Your task to perform on an android device: check the backup settings in the google photos Image 0: 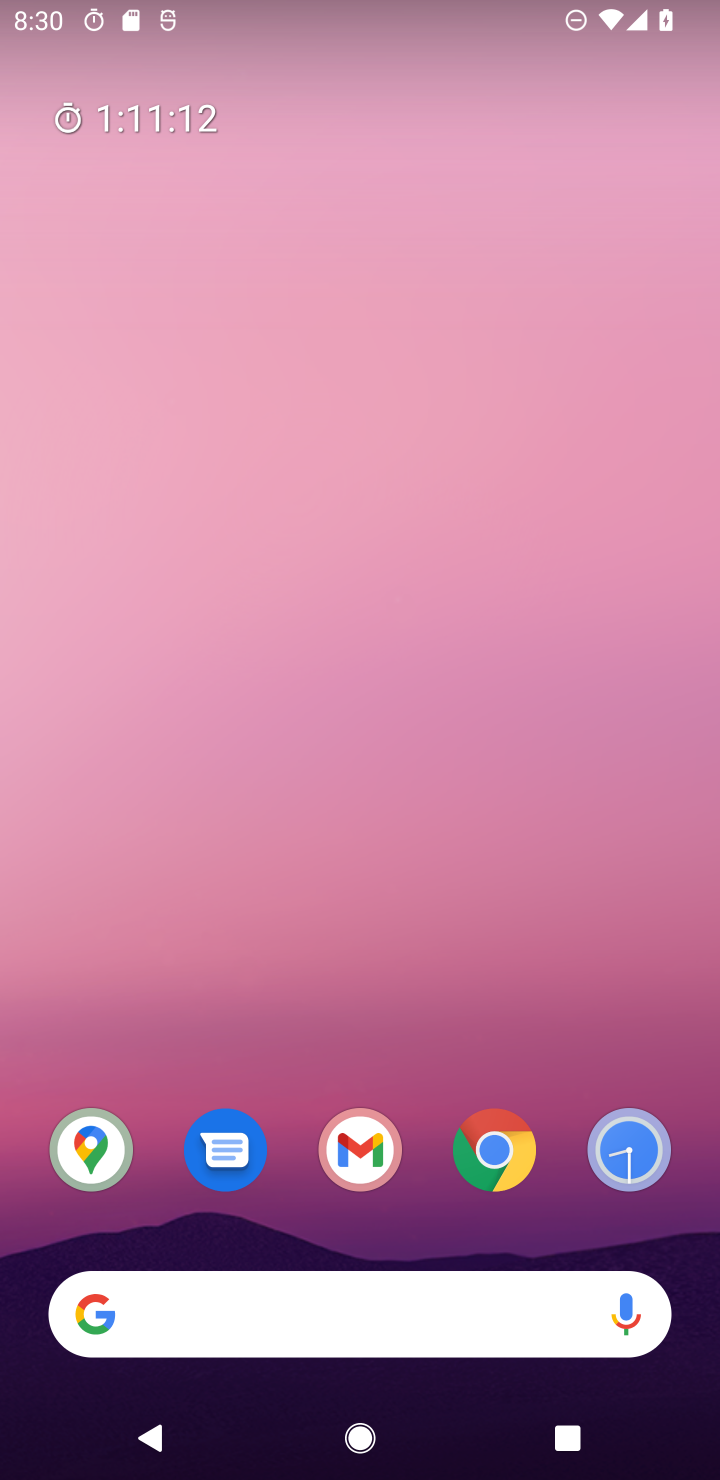
Step 0: drag from (431, 1072) to (439, 25)
Your task to perform on an android device: check the backup settings in the google photos Image 1: 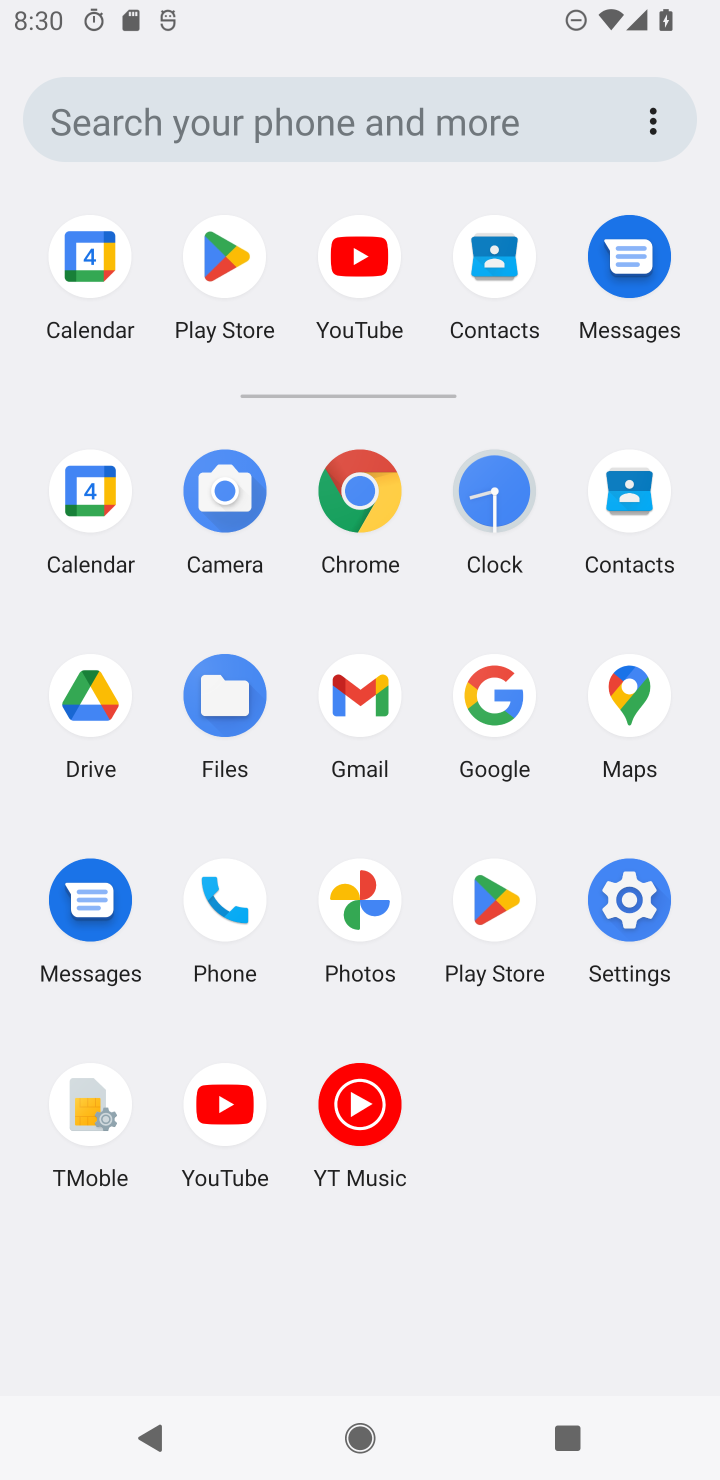
Step 1: click (336, 911)
Your task to perform on an android device: check the backup settings in the google photos Image 2: 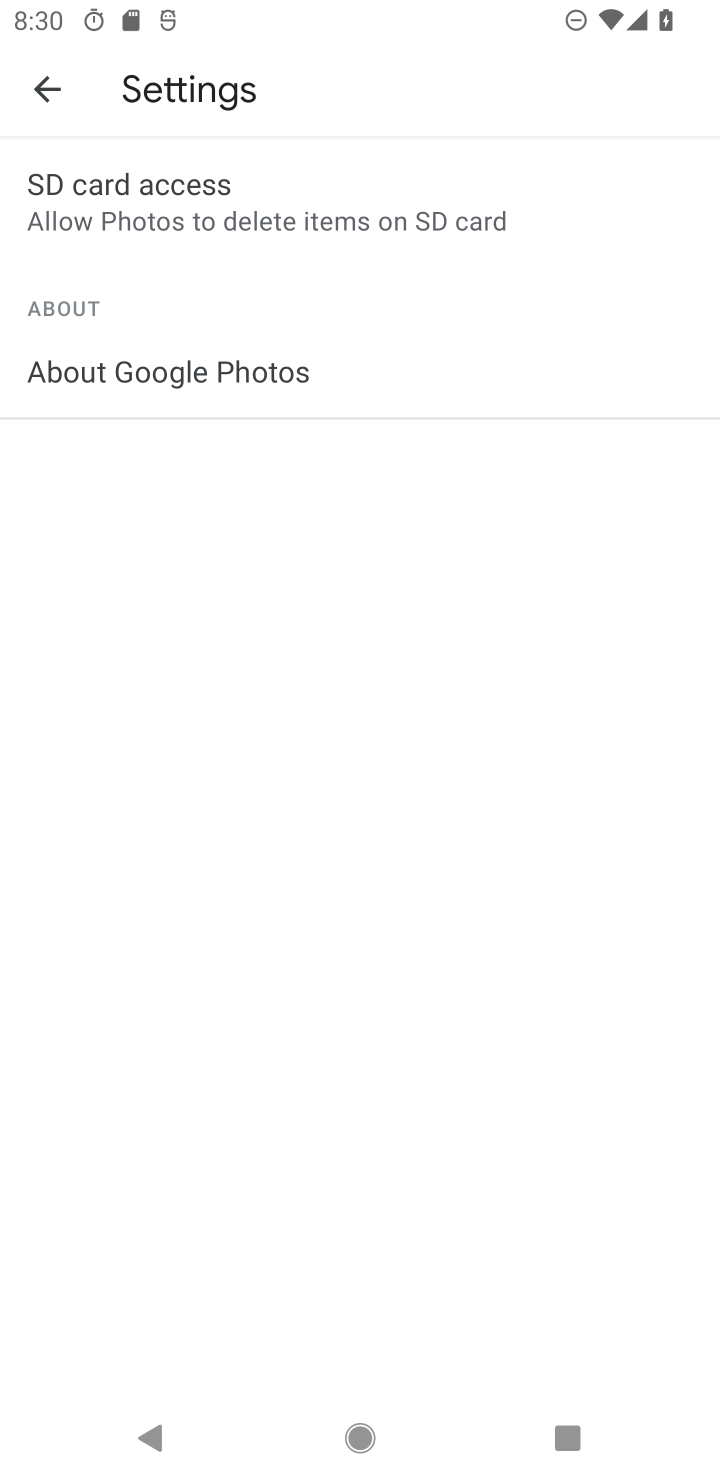
Step 2: press back button
Your task to perform on an android device: check the backup settings in the google photos Image 3: 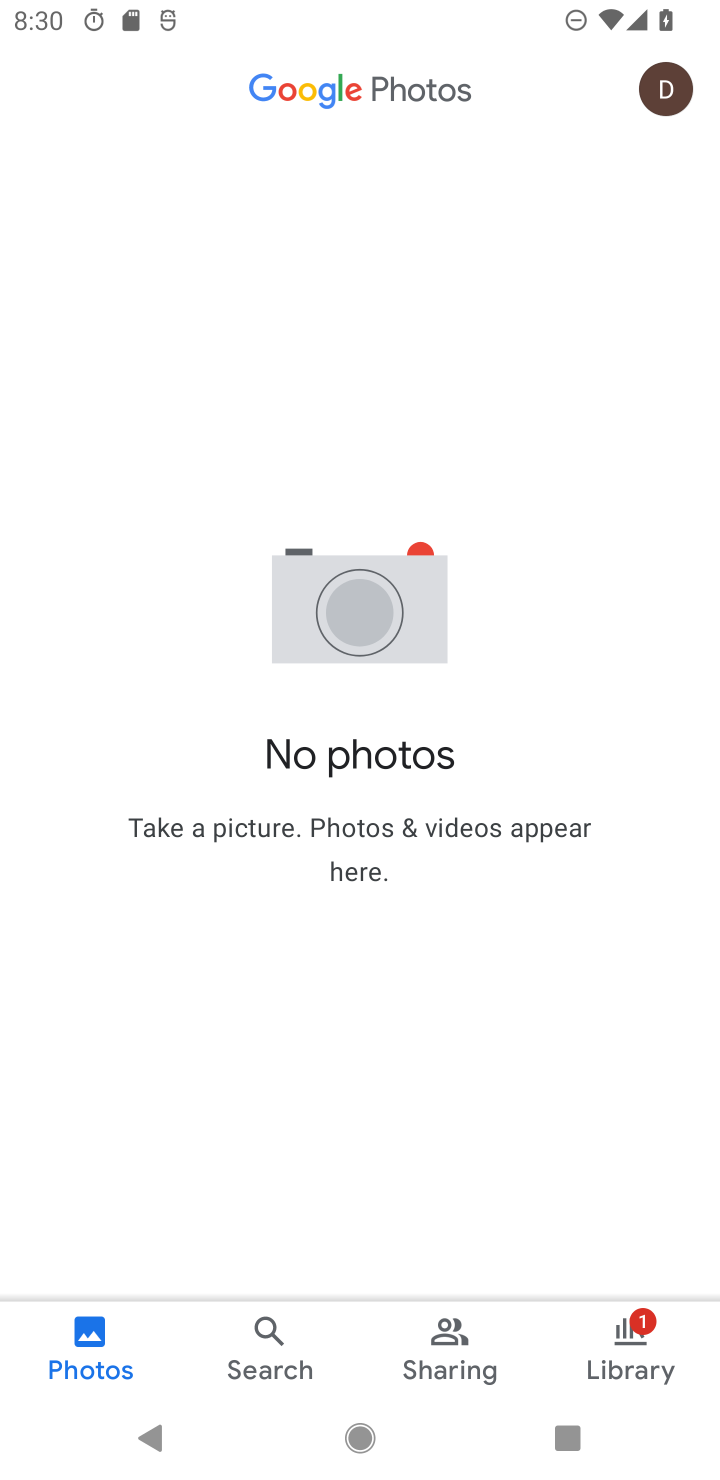
Step 3: click (646, 83)
Your task to perform on an android device: check the backup settings in the google photos Image 4: 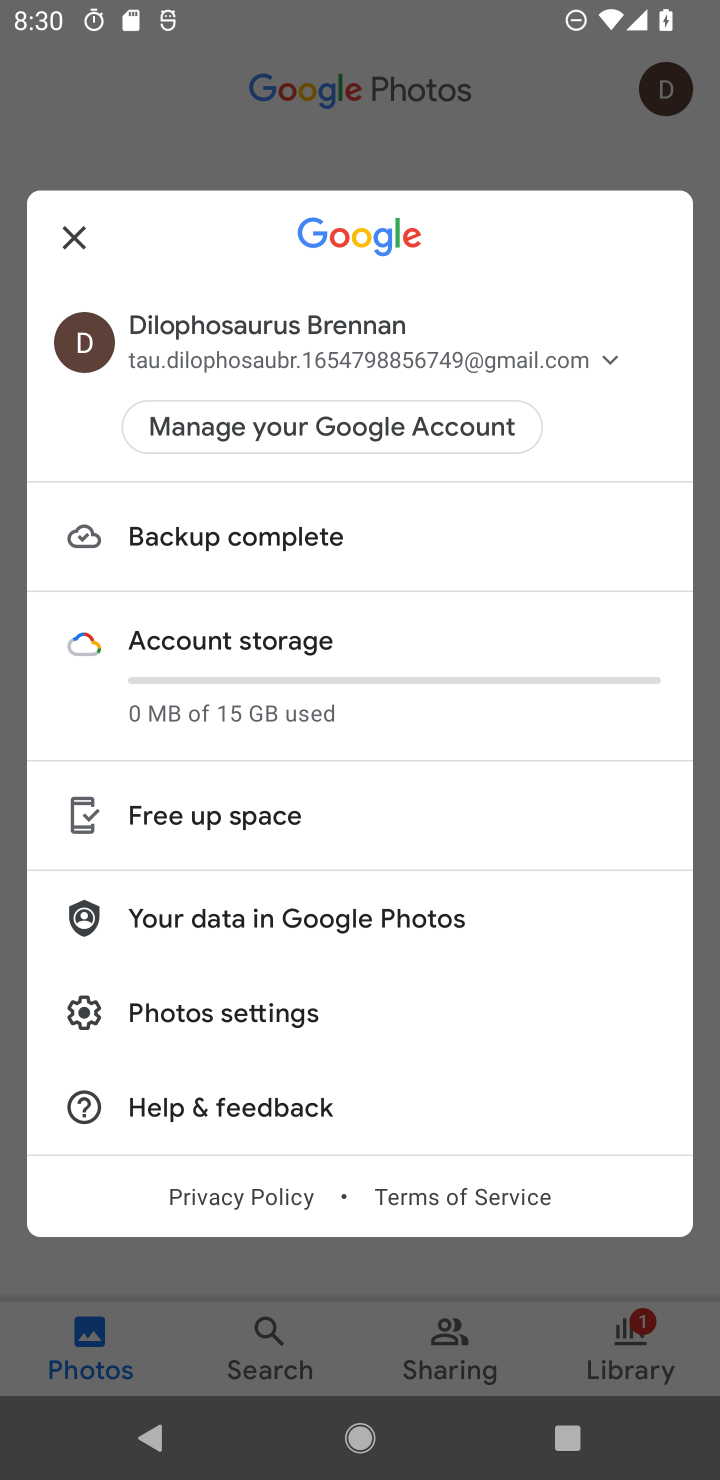
Step 4: click (300, 1020)
Your task to perform on an android device: check the backup settings in the google photos Image 5: 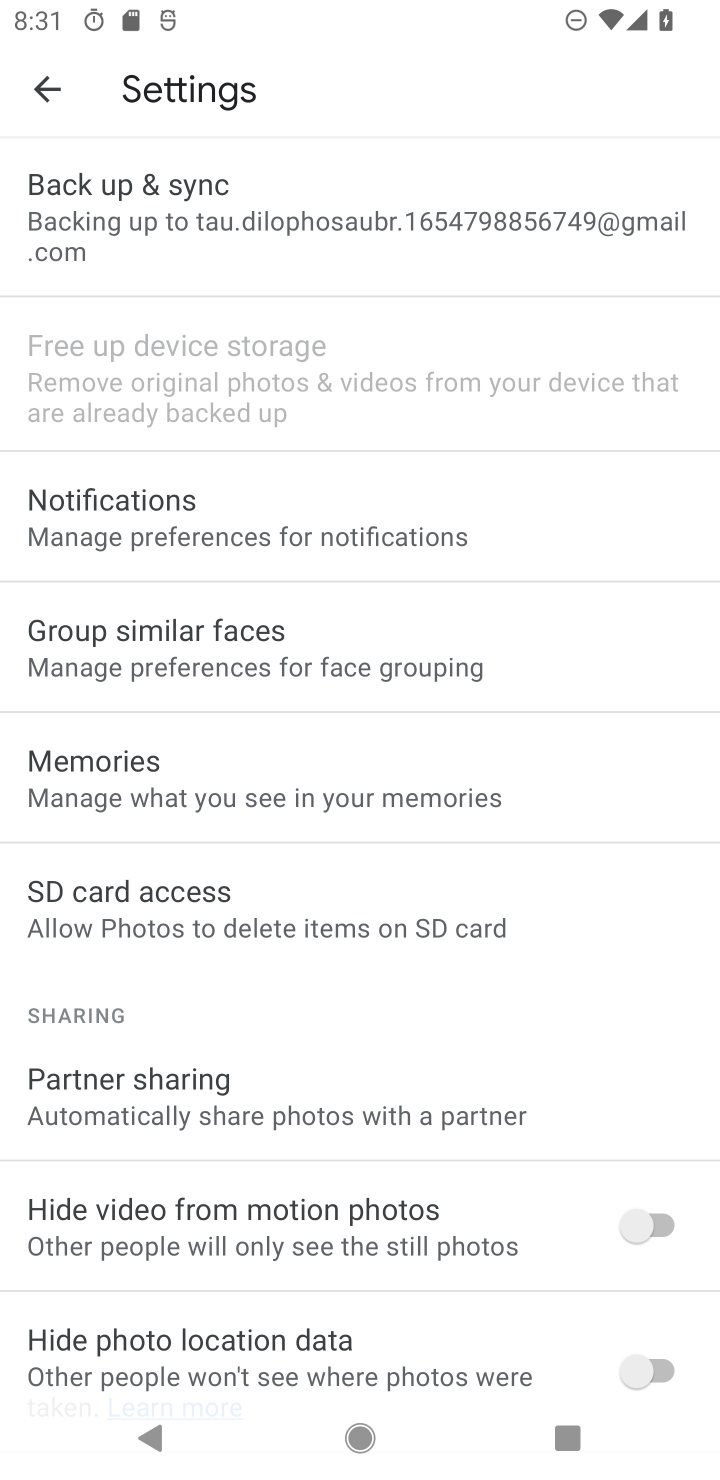
Step 5: click (293, 240)
Your task to perform on an android device: check the backup settings in the google photos Image 6: 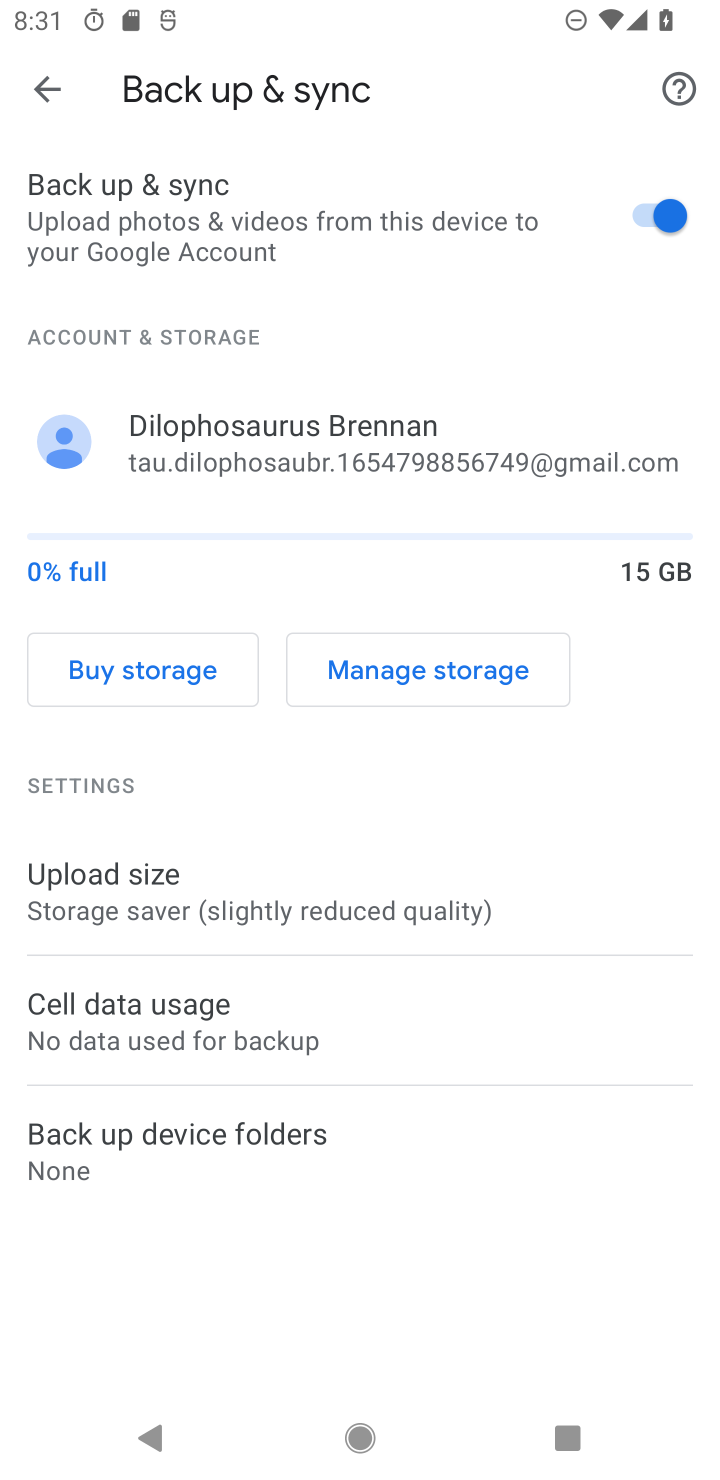
Step 6: task complete